Your task to perform on an android device: turn off notifications in google photos Image 0: 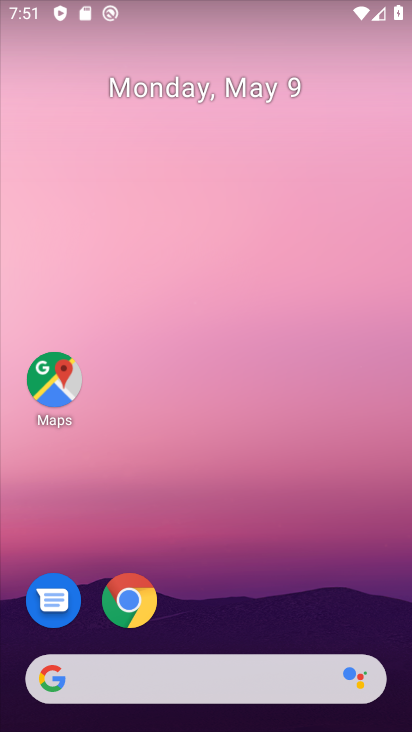
Step 0: drag from (268, 561) to (278, 29)
Your task to perform on an android device: turn off notifications in google photos Image 1: 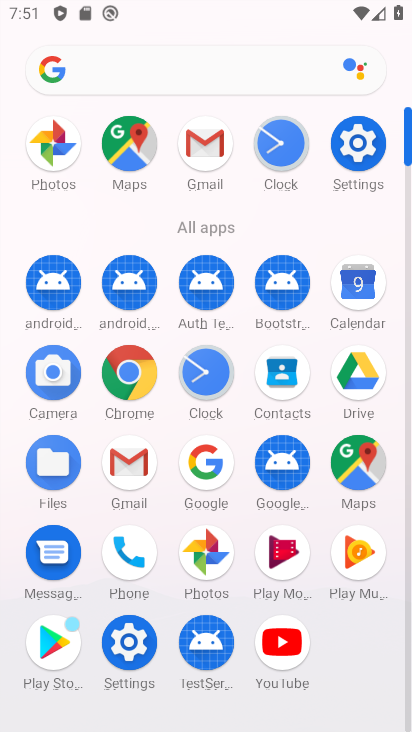
Step 1: drag from (4, 596) to (4, 251)
Your task to perform on an android device: turn off notifications in google photos Image 2: 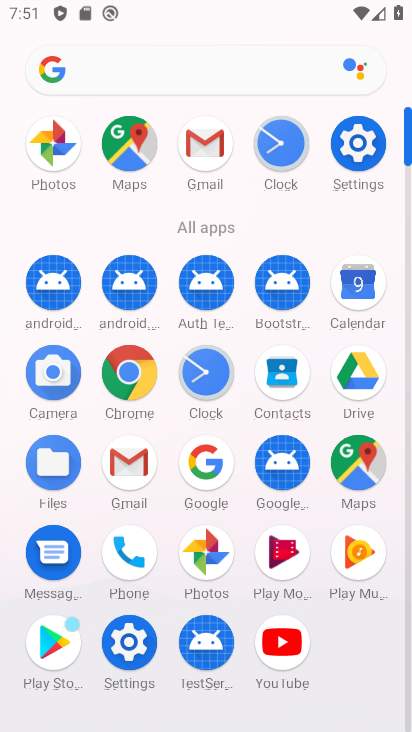
Step 2: drag from (6, 522) to (16, 234)
Your task to perform on an android device: turn off notifications in google photos Image 3: 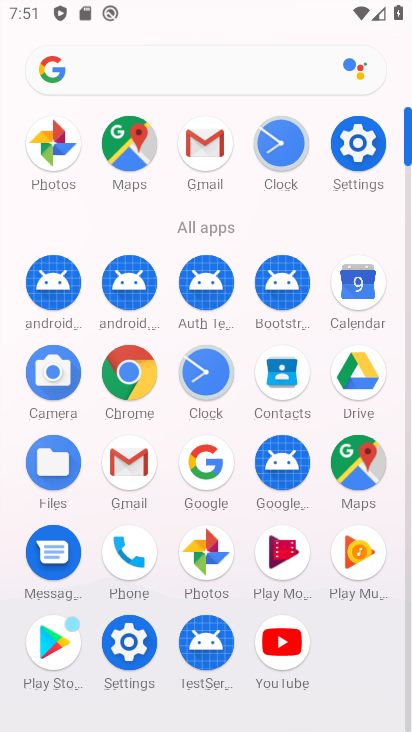
Step 3: click (52, 138)
Your task to perform on an android device: turn off notifications in google photos Image 4: 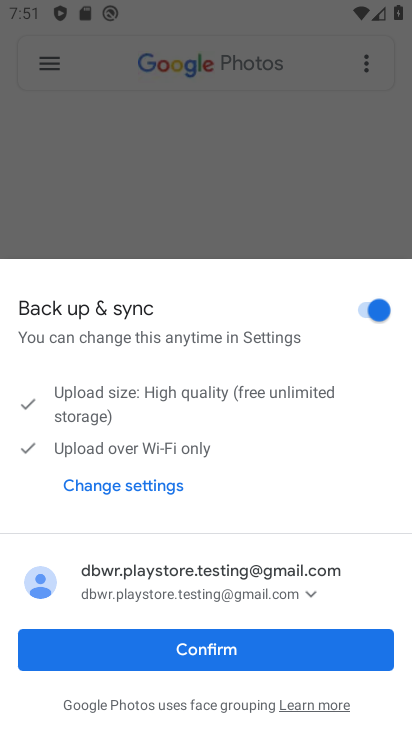
Step 4: click (268, 643)
Your task to perform on an android device: turn off notifications in google photos Image 5: 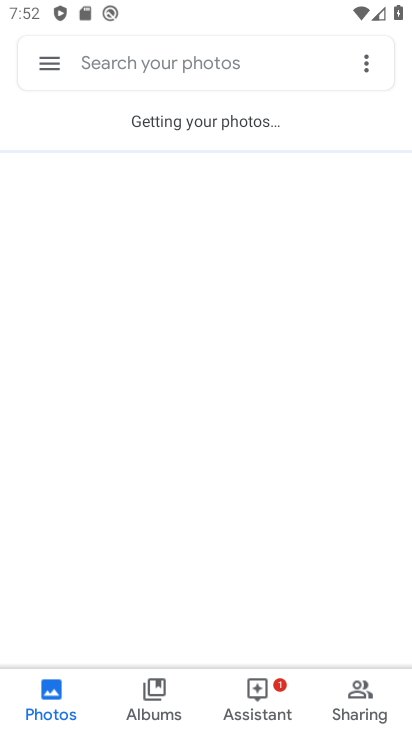
Step 5: click (46, 62)
Your task to perform on an android device: turn off notifications in google photos Image 6: 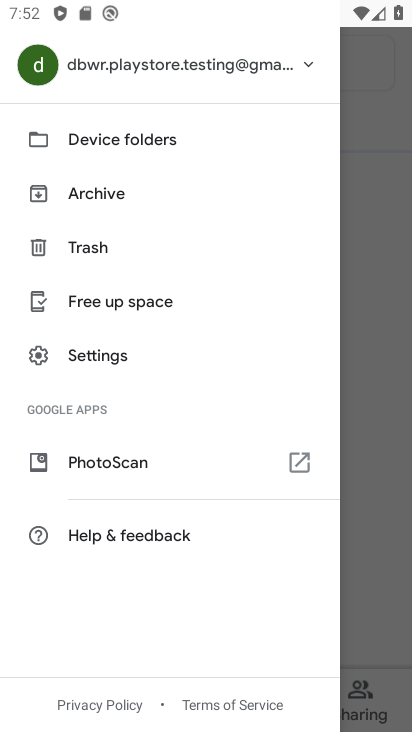
Step 6: click (84, 356)
Your task to perform on an android device: turn off notifications in google photos Image 7: 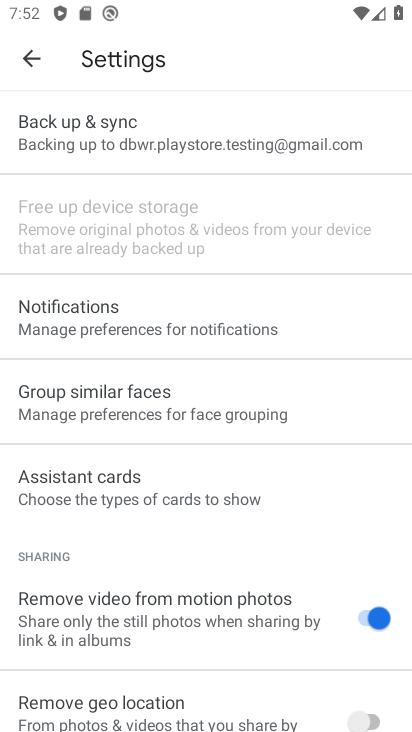
Step 7: click (146, 305)
Your task to perform on an android device: turn off notifications in google photos Image 8: 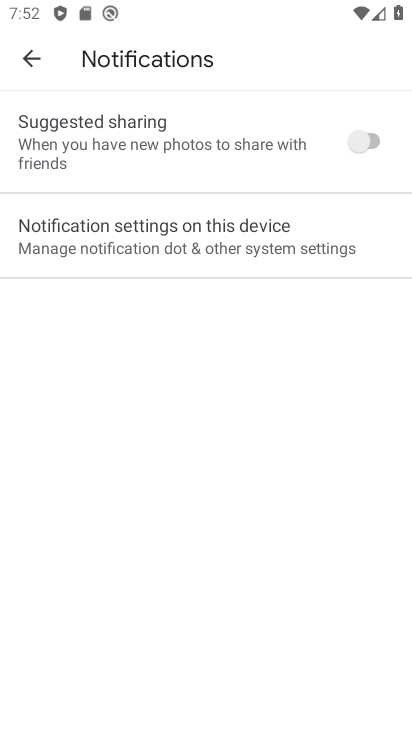
Step 8: click (323, 239)
Your task to perform on an android device: turn off notifications in google photos Image 9: 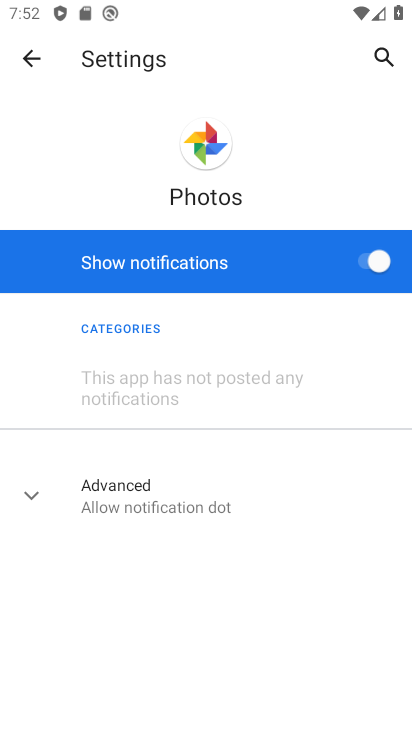
Step 9: click (368, 256)
Your task to perform on an android device: turn off notifications in google photos Image 10: 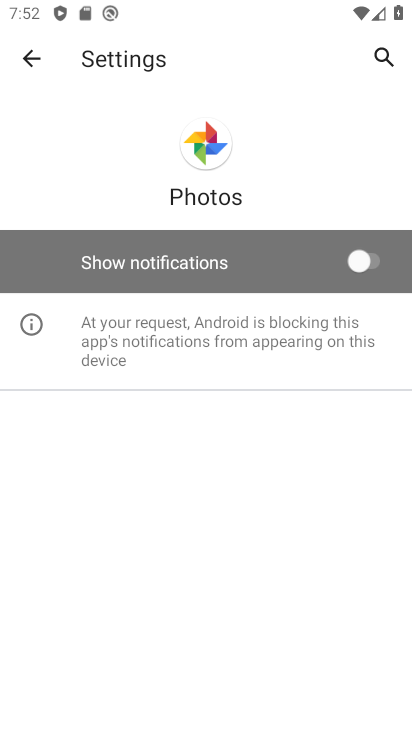
Step 10: task complete